Your task to perform on an android device: Open Google Chrome Image 0: 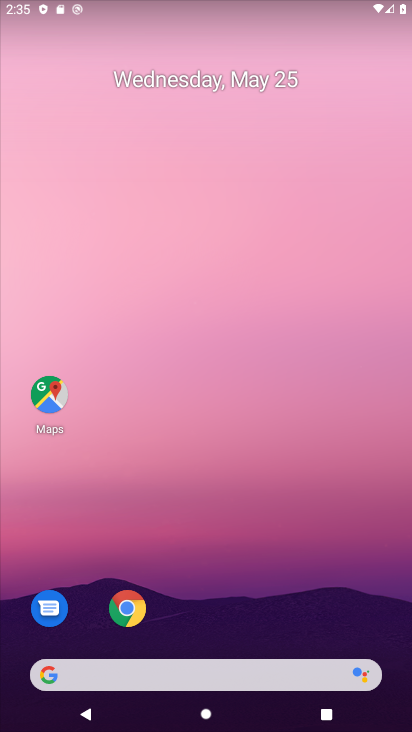
Step 0: click (133, 618)
Your task to perform on an android device: Open Google Chrome Image 1: 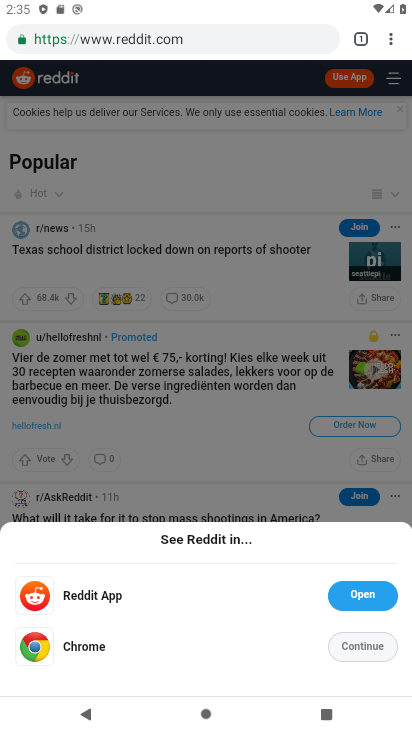
Step 1: task complete